Your task to perform on an android device: Open calendar and show me the second week of next month Image 0: 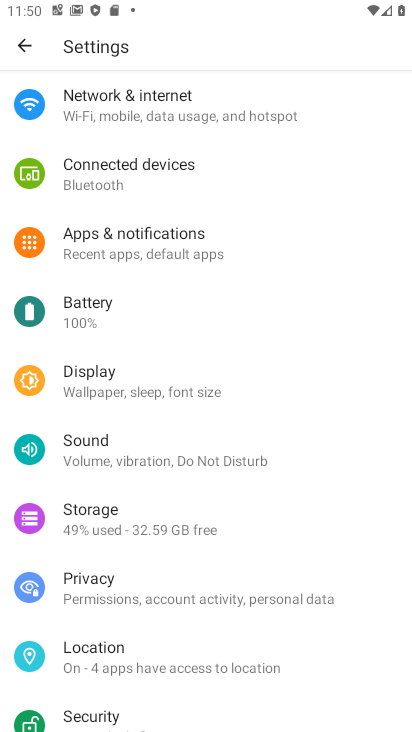
Step 0: press home button
Your task to perform on an android device: Open calendar and show me the second week of next month Image 1: 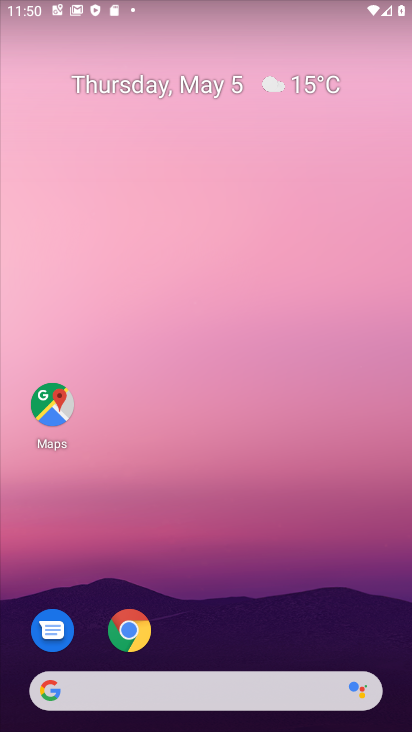
Step 1: drag from (249, 585) to (266, 128)
Your task to perform on an android device: Open calendar and show me the second week of next month Image 2: 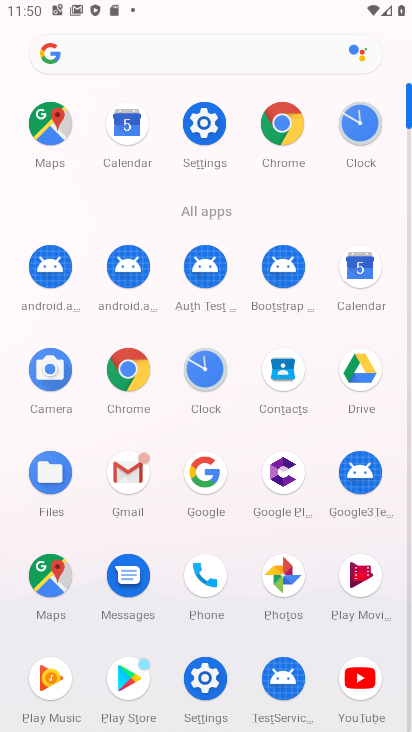
Step 2: click (346, 268)
Your task to perform on an android device: Open calendar and show me the second week of next month Image 3: 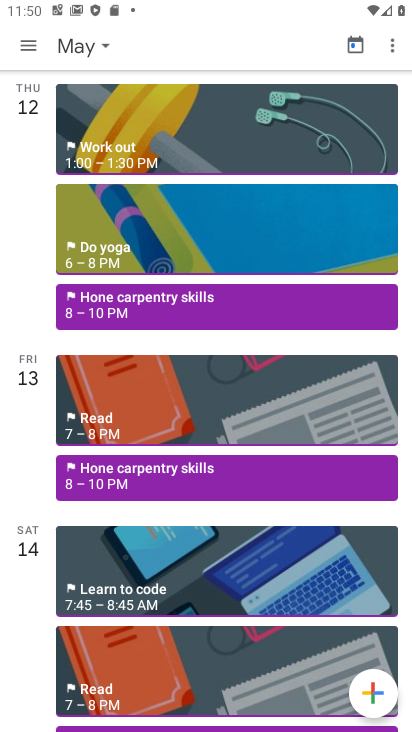
Step 3: click (59, 57)
Your task to perform on an android device: Open calendar and show me the second week of next month Image 4: 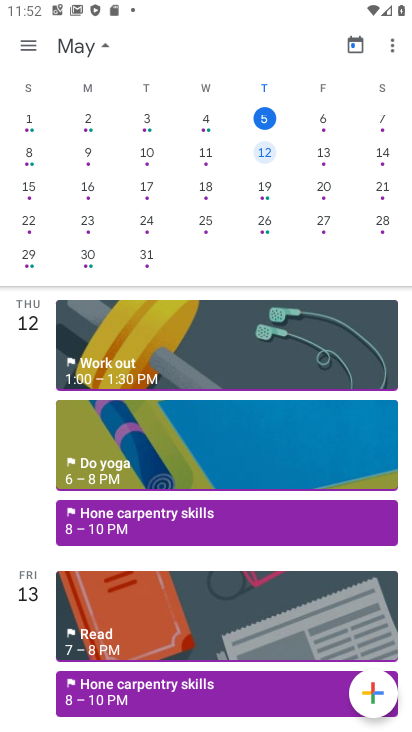
Step 4: drag from (357, 158) to (34, 177)
Your task to perform on an android device: Open calendar and show me the second week of next month Image 5: 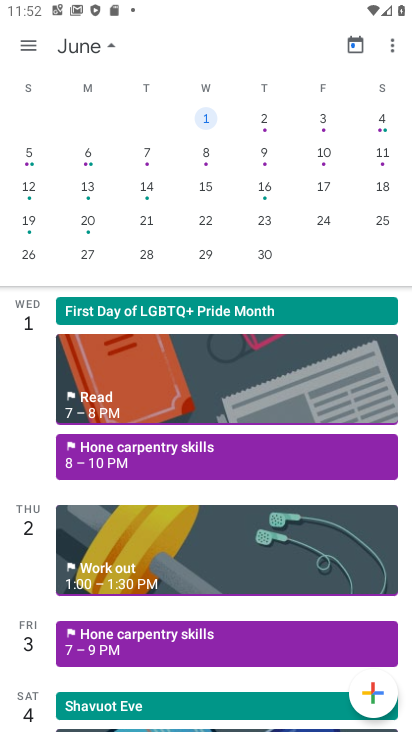
Step 5: click (196, 147)
Your task to perform on an android device: Open calendar and show me the second week of next month Image 6: 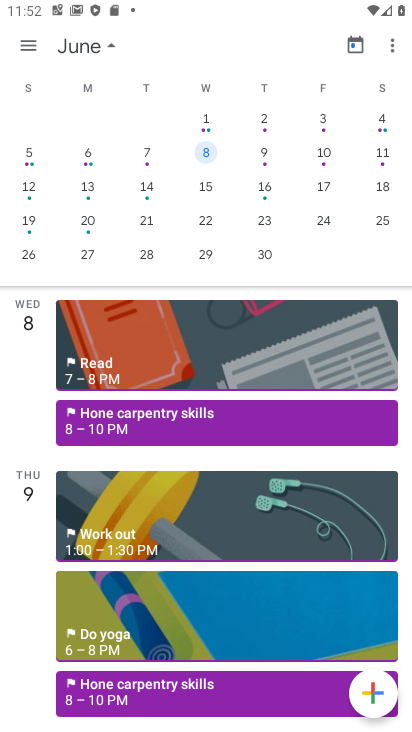
Step 6: task complete